Your task to perform on an android device: Open settings on Google Maps Image 0: 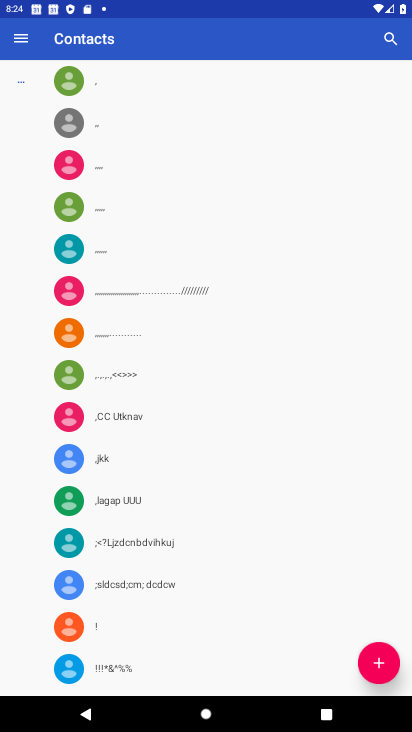
Step 0: press back button
Your task to perform on an android device: Open settings on Google Maps Image 1: 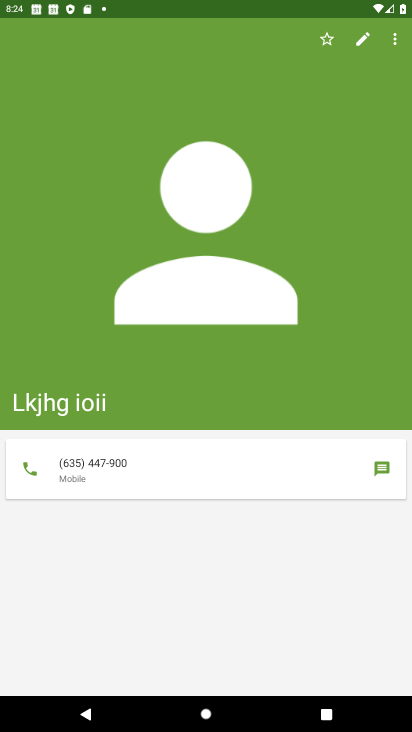
Step 1: press home button
Your task to perform on an android device: Open settings on Google Maps Image 2: 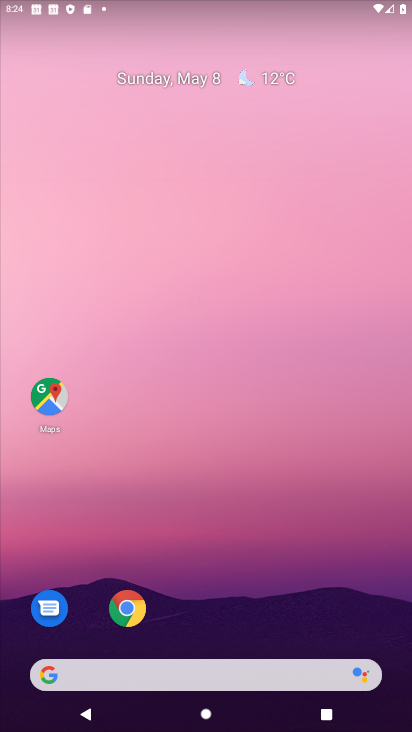
Step 2: drag from (327, 553) to (252, 24)
Your task to perform on an android device: Open settings on Google Maps Image 3: 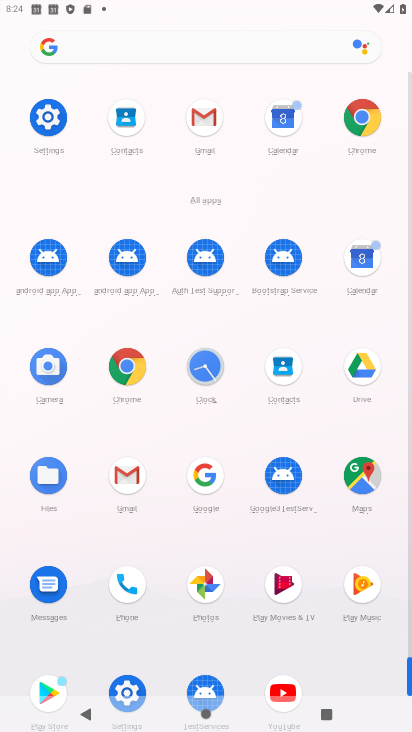
Step 3: click (360, 472)
Your task to perform on an android device: Open settings on Google Maps Image 4: 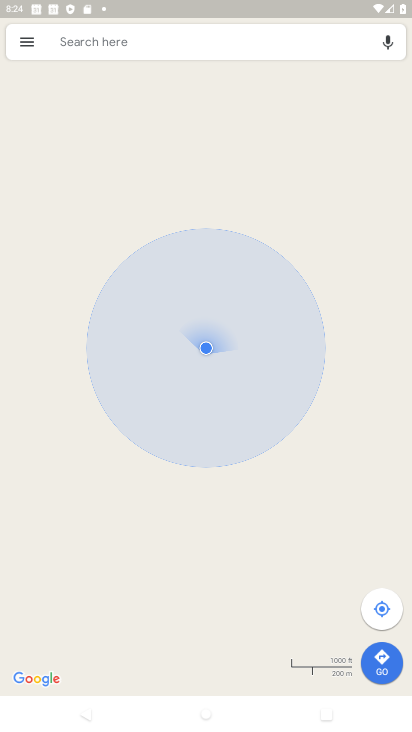
Step 4: click (123, 41)
Your task to perform on an android device: Open settings on Google Maps Image 5: 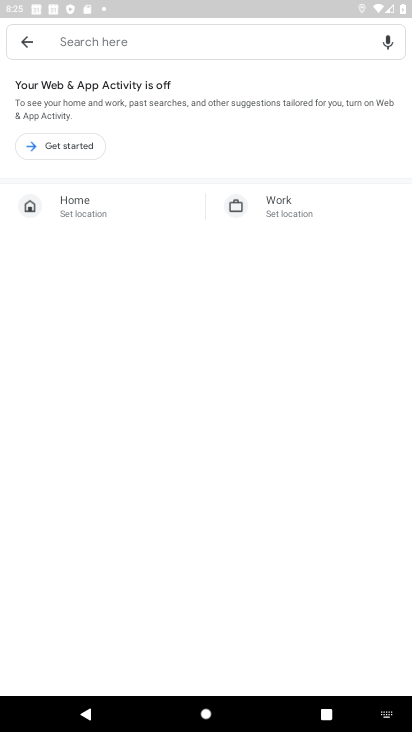
Step 5: click (26, 48)
Your task to perform on an android device: Open settings on Google Maps Image 6: 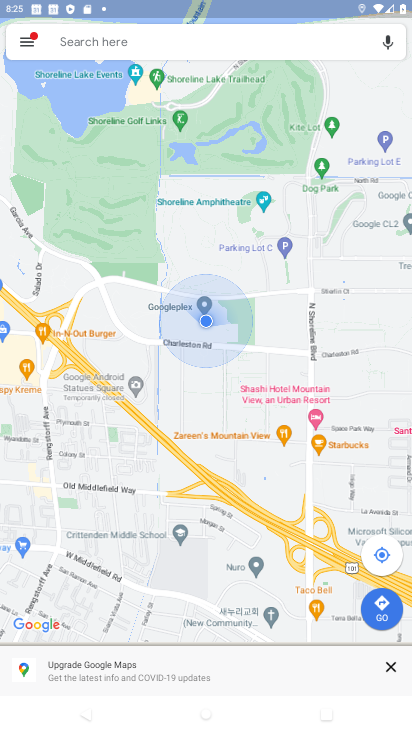
Step 6: click (26, 44)
Your task to perform on an android device: Open settings on Google Maps Image 7: 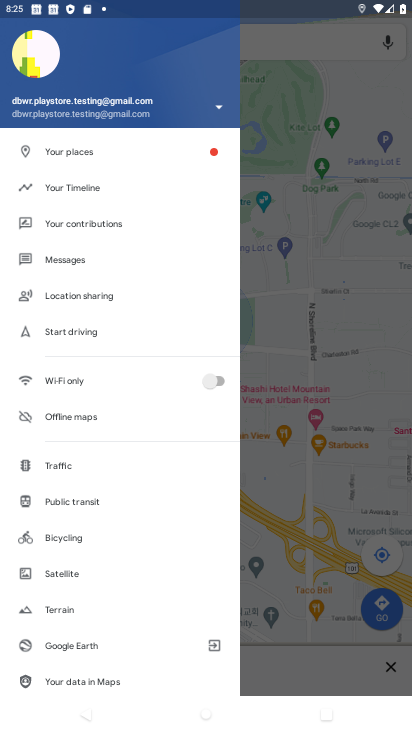
Step 7: drag from (99, 652) to (125, 248)
Your task to perform on an android device: Open settings on Google Maps Image 8: 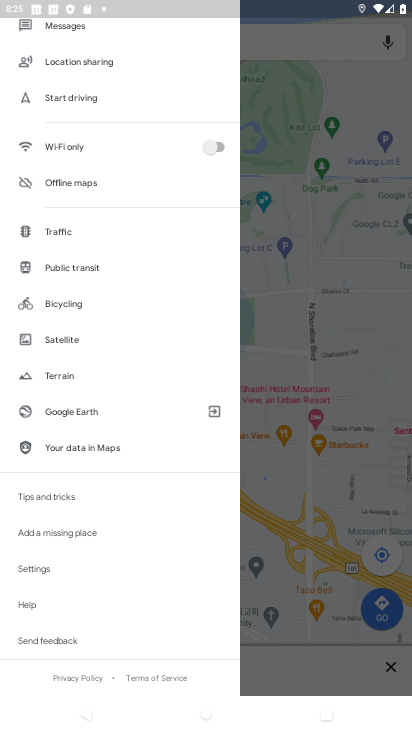
Step 8: click (37, 569)
Your task to perform on an android device: Open settings on Google Maps Image 9: 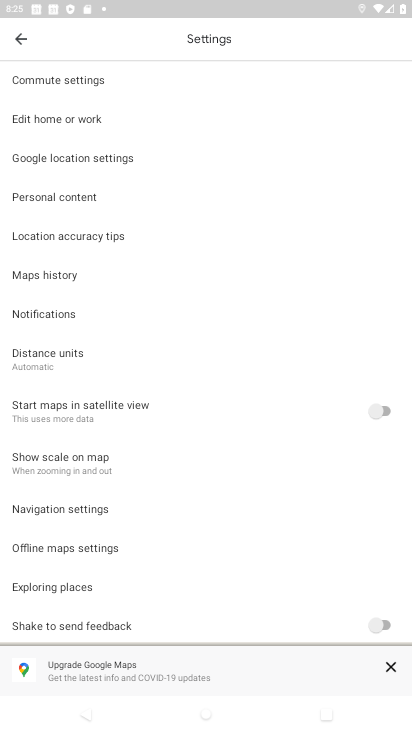
Step 9: task complete